Your task to perform on an android device: Open the Play Movies app and select the watchlist tab. Image 0: 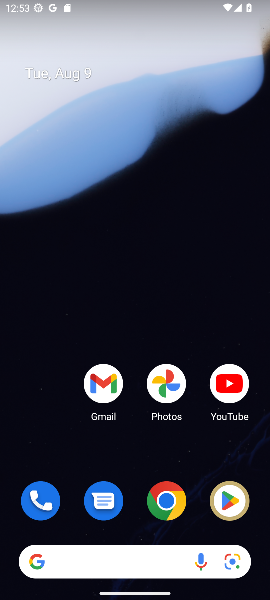
Step 0: drag from (132, 456) to (161, 148)
Your task to perform on an android device: Open the Play Movies app and select the watchlist tab. Image 1: 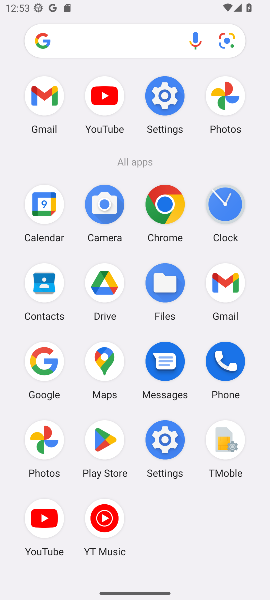
Step 1: task complete